Your task to perform on an android device: Open Chrome and go to settings Image 0: 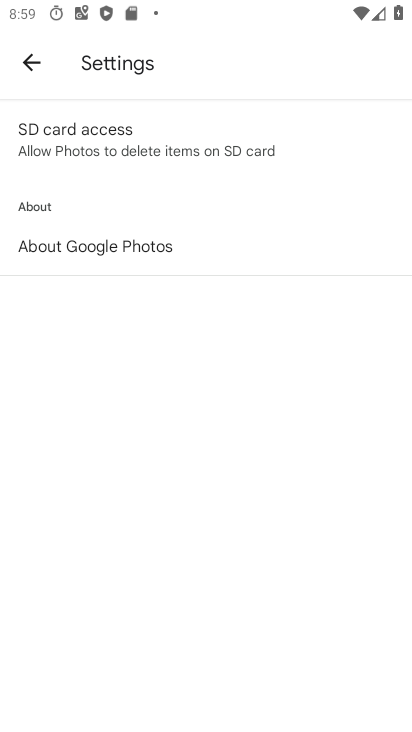
Step 0: press back button
Your task to perform on an android device: Open Chrome and go to settings Image 1: 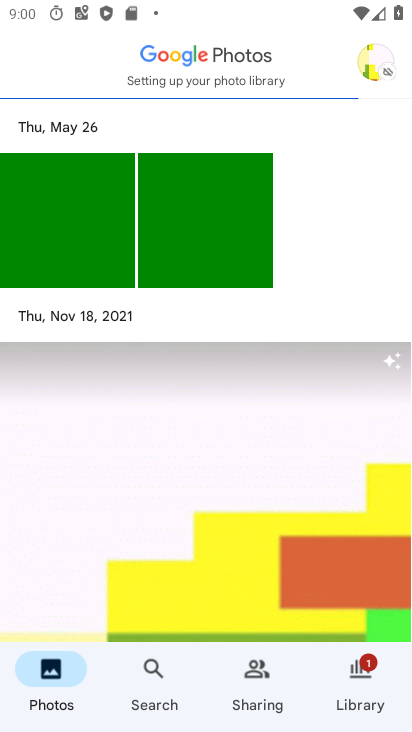
Step 1: press back button
Your task to perform on an android device: Open Chrome and go to settings Image 2: 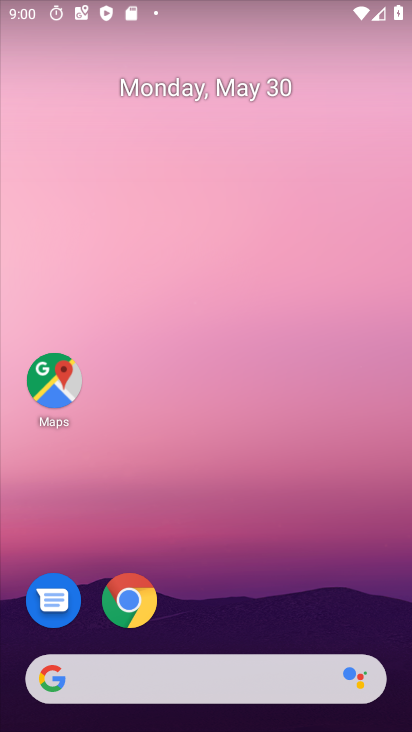
Step 2: drag from (324, 587) to (259, 9)
Your task to perform on an android device: Open Chrome and go to settings Image 3: 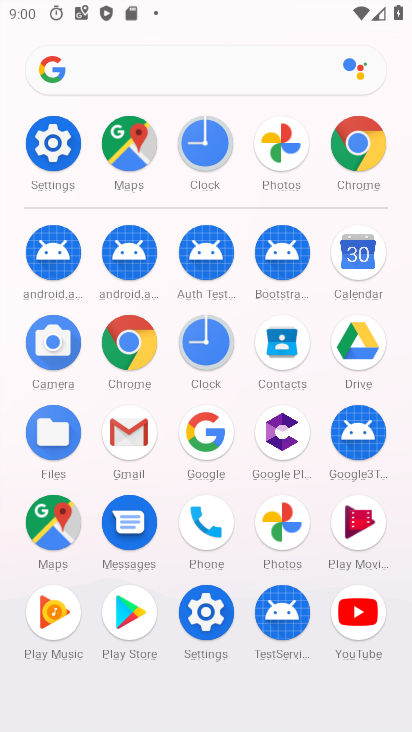
Step 3: click (128, 337)
Your task to perform on an android device: Open Chrome and go to settings Image 4: 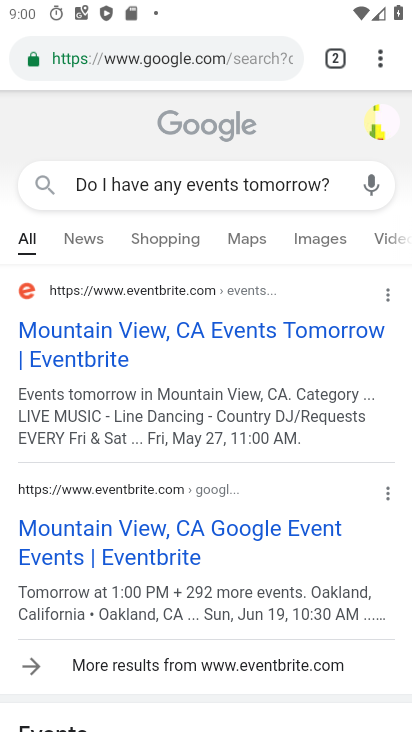
Step 4: task complete